Your task to perform on an android device: Open the phone app and click the voicemail tab. Image 0: 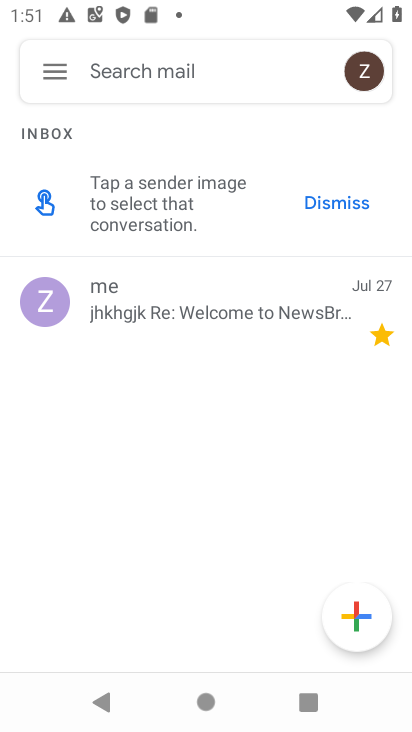
Step 0: press home button
Your task to perform on an android device: Open the phone app and click the voicemail tab. Image 1: 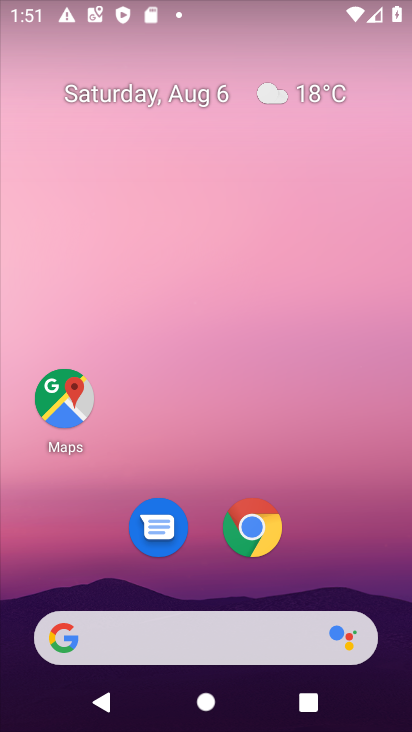
Step 1: drag from (212, 574) to (181, 94)
Your task to perform on an android device: Open the phone app and click the voicemail tab. Image 2: 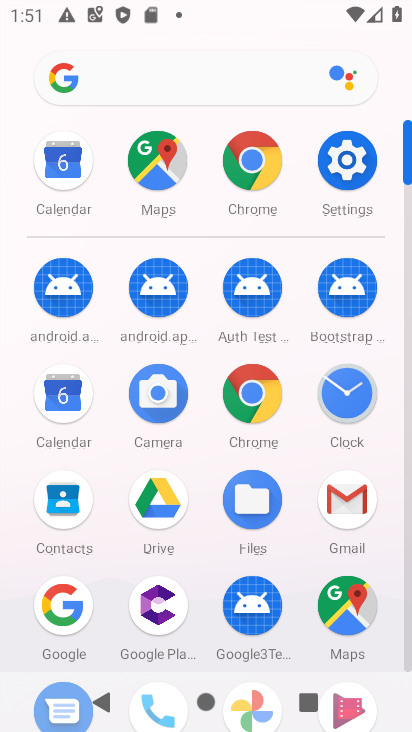
Step 2: drag from (303, 254) to (278, 4)
Your task to perform on an android device: Open the phone app and click the voicemail tab. Image 3: 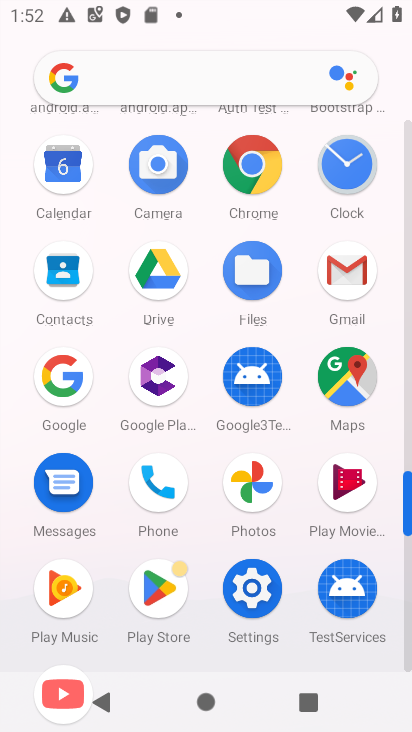
Step 3: click (163, 489)
Your task to perform on an android device: Open the phone app and click the voicemail tab. Image 4: 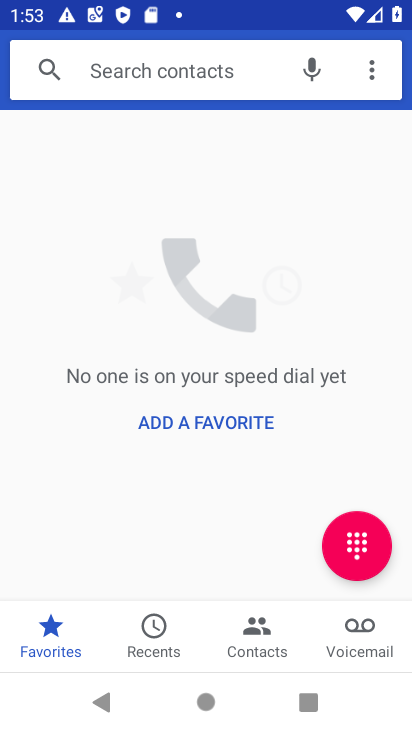
Step 4: press home button
Your task to perform on an android device: Open the phone app and click the voicemail tab. Image 5: 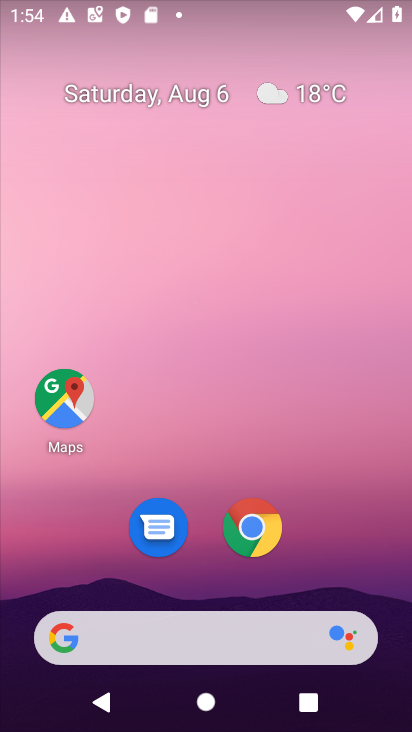
Step 5: drag from (35, 498) to (253, 110)
Your task to perform on an android device: Open the phone app and click the voicemail tab. Image 6: 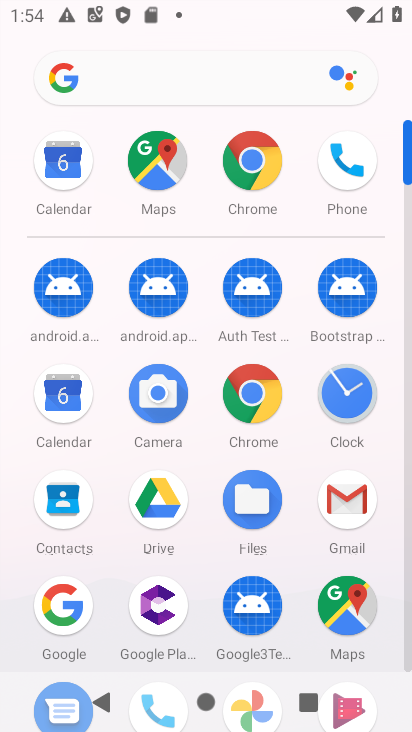
Step 6: click (145, 698)
Your task to perform on an android device: Open the phone app and click the voicemail tab. Image 7: 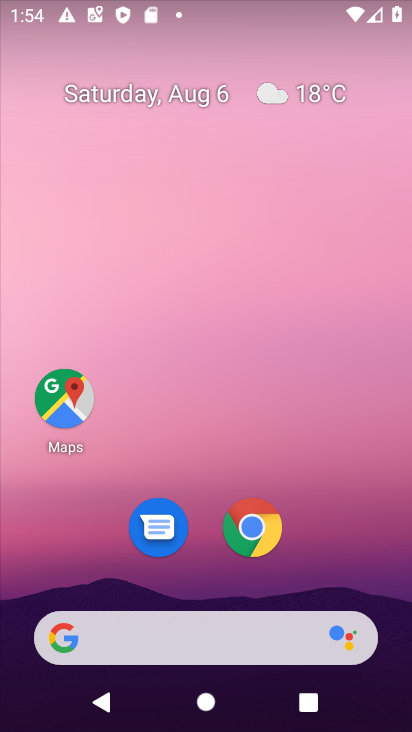
Step 7: drag from (63, 575) to (249, 143)
Your task to perform on an android device: Open the phone app and click the voicemail tab. Image 8: 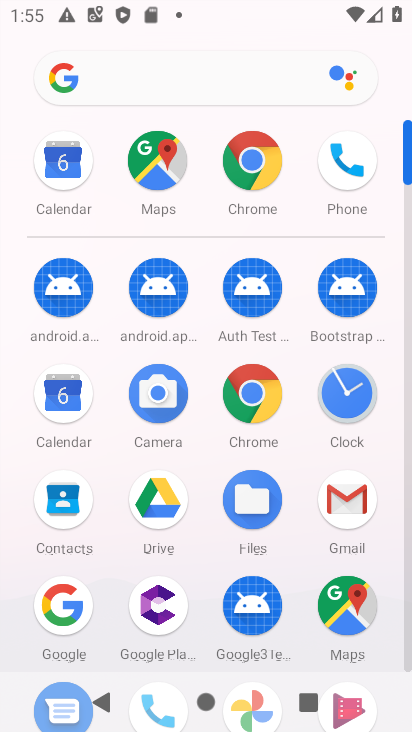
Step 8: drag from (37, 558) to (208, 277)
Your task to perform on an android device: Open the phone app and click the voicemail tab. Image 9: 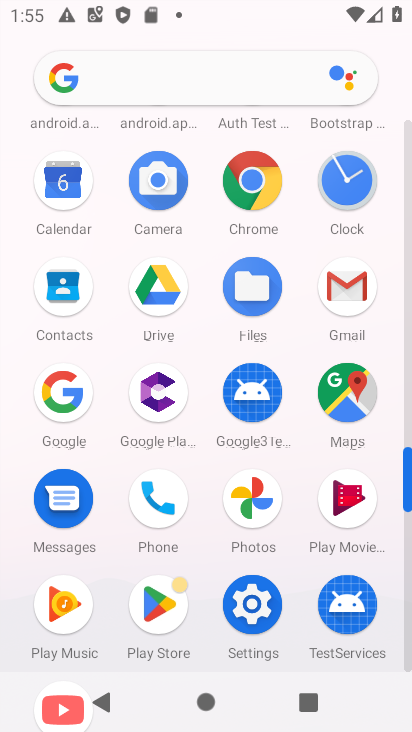
Step 9: click (147, 486)
Your task to perform on an android device: Open the phone app and click the voicemail tab. Image 10: 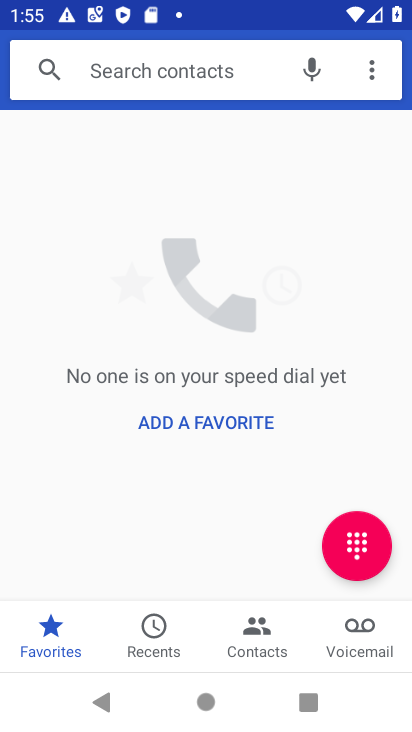
Step 10: click (357, 624)
Your task to perform on an android device: Open the phone app and click the voicemail tab. Image 11: 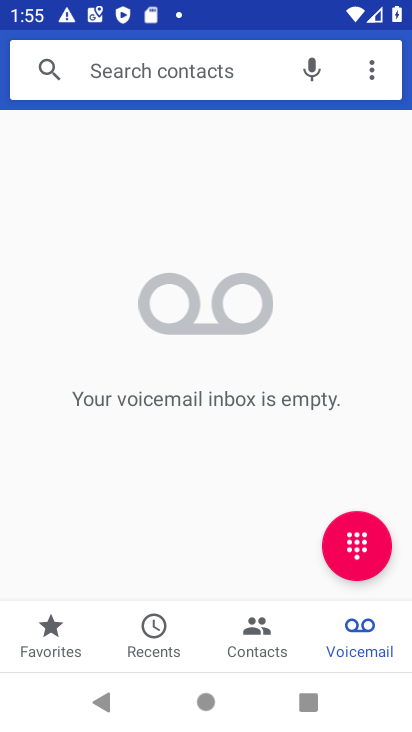
Step 11: task complete